Your task to perform on an android device: Open calendar and show me the second week of next month Image 0: 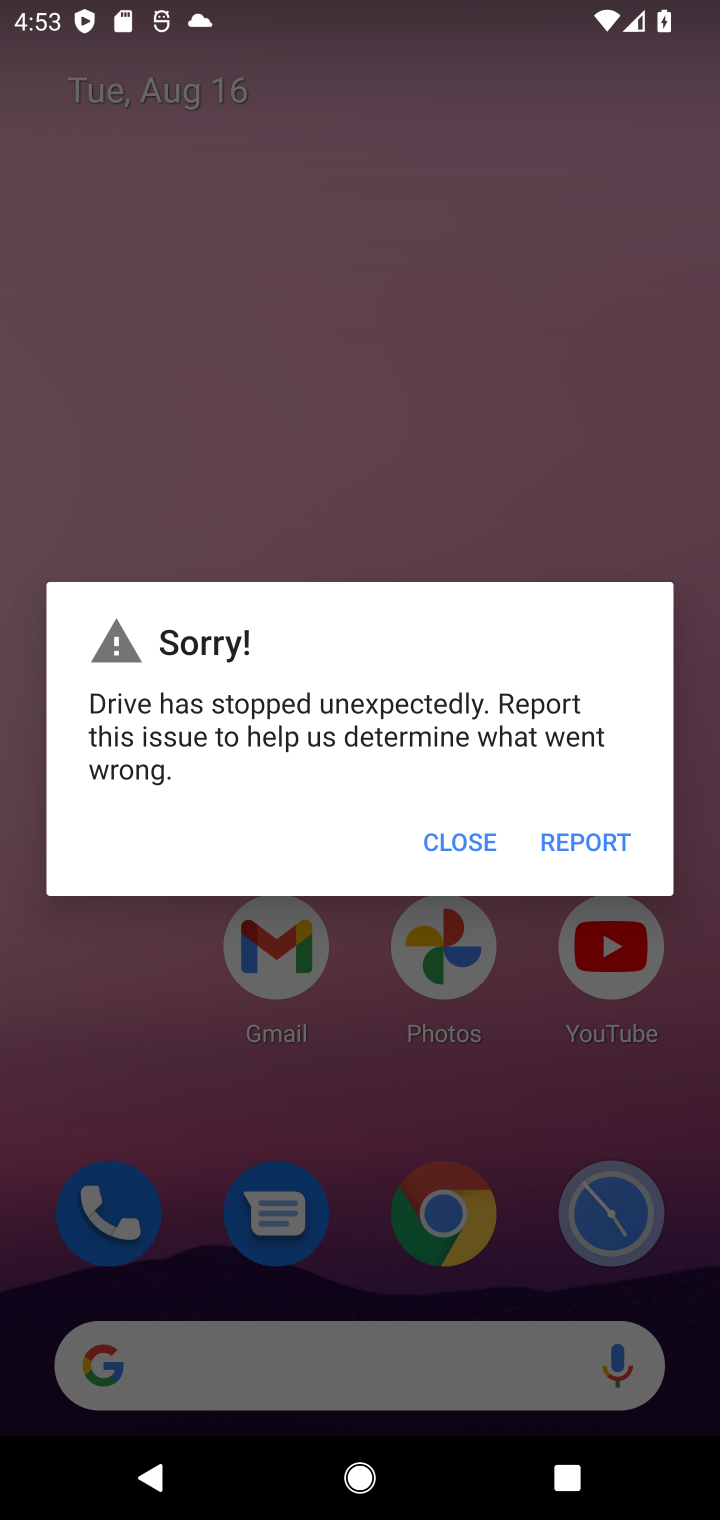
Step 0: press home button
Your task to perform on an android device: Open calendar and show me the second week of next month Image 1: 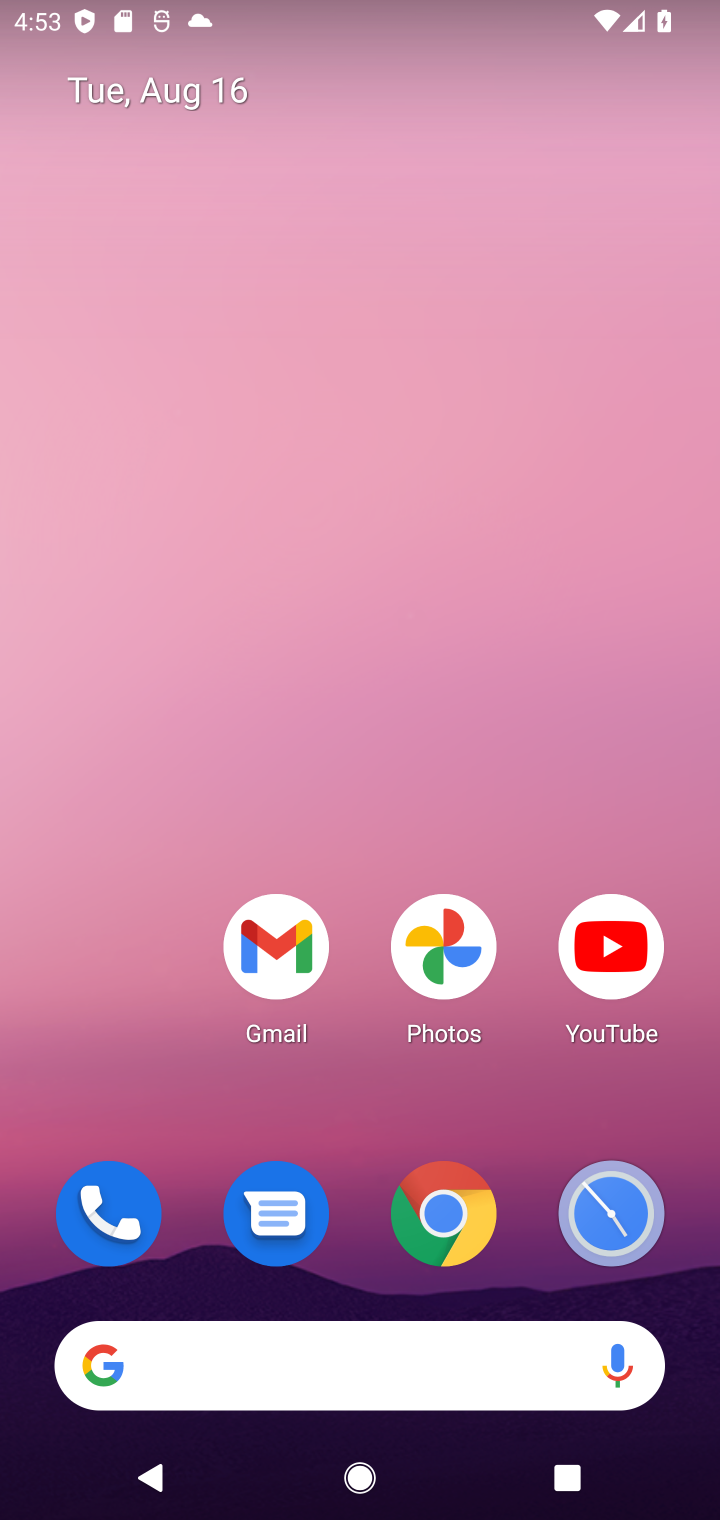
Step 1: drag from (324, 970) to (620, 21)
Your task to perform on an android device: Open calendar and show me the second week of next month Image 2: 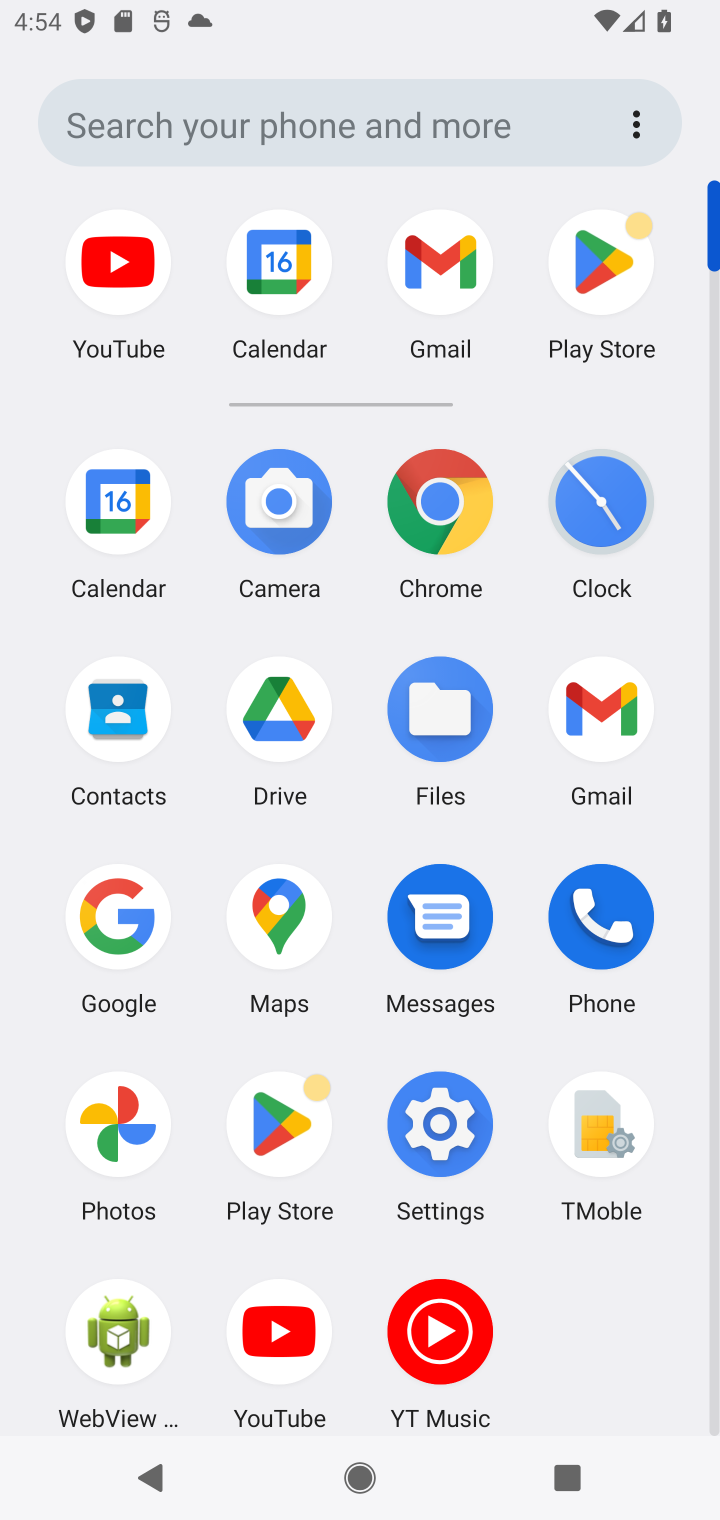
Step 2: click (119, 511)
Your task to perform on an android device: Open calendar and show me the second week of next month Image 3: 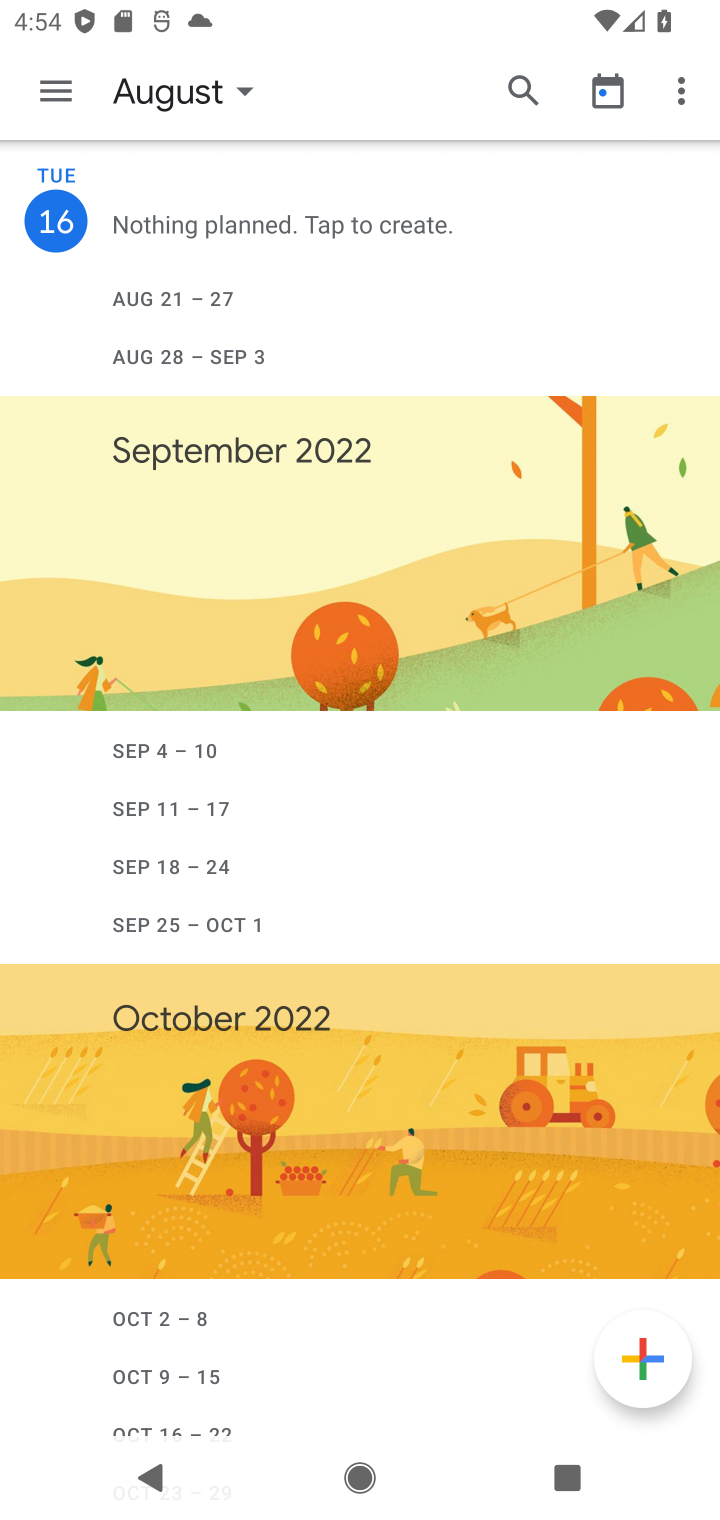
Step 3: click (139, 92)
Your task to perform on an android device: Open calendar and show me the second week of next month Image 4: 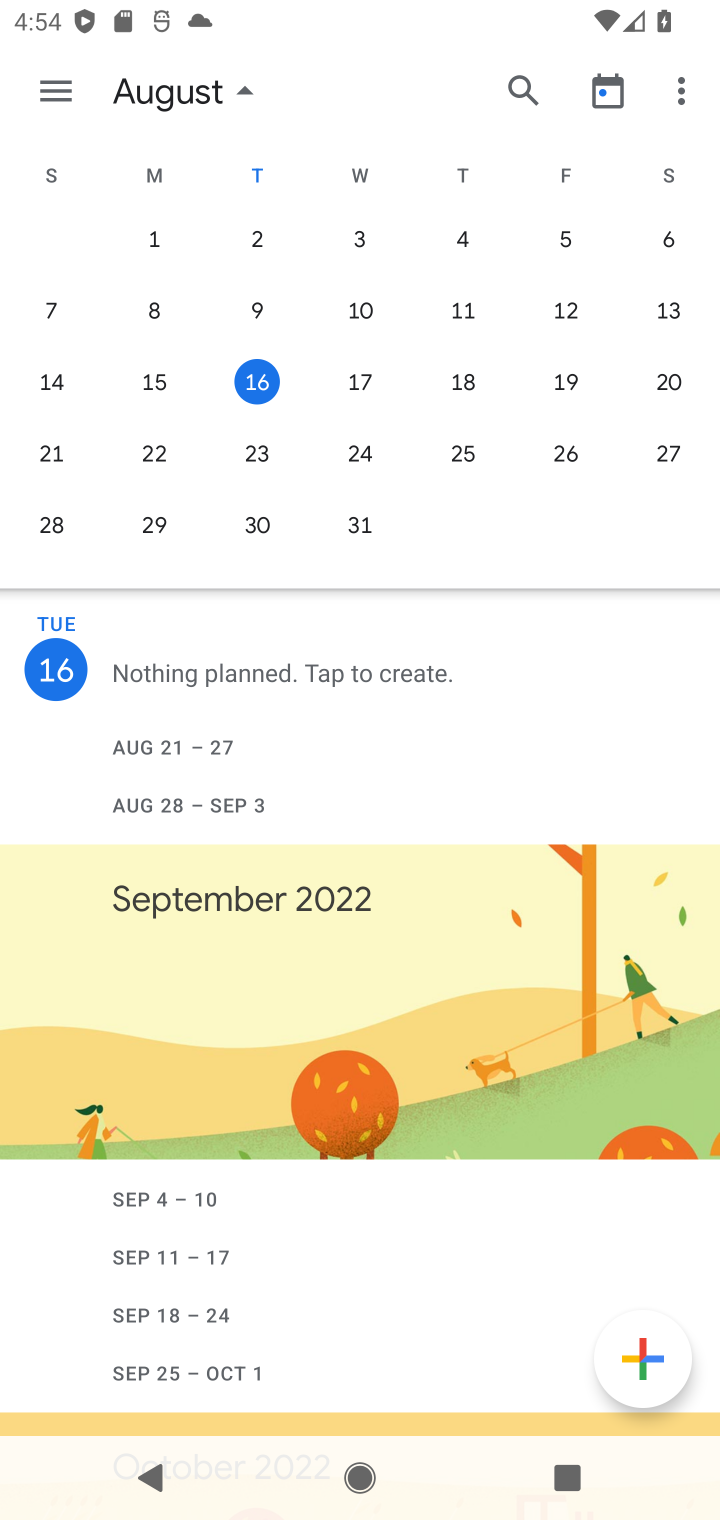
Step 4: drag from (591, 321) to (96, 381)
Your task to perform on an android device: Open calendar and show me the second week of next month Image 5: 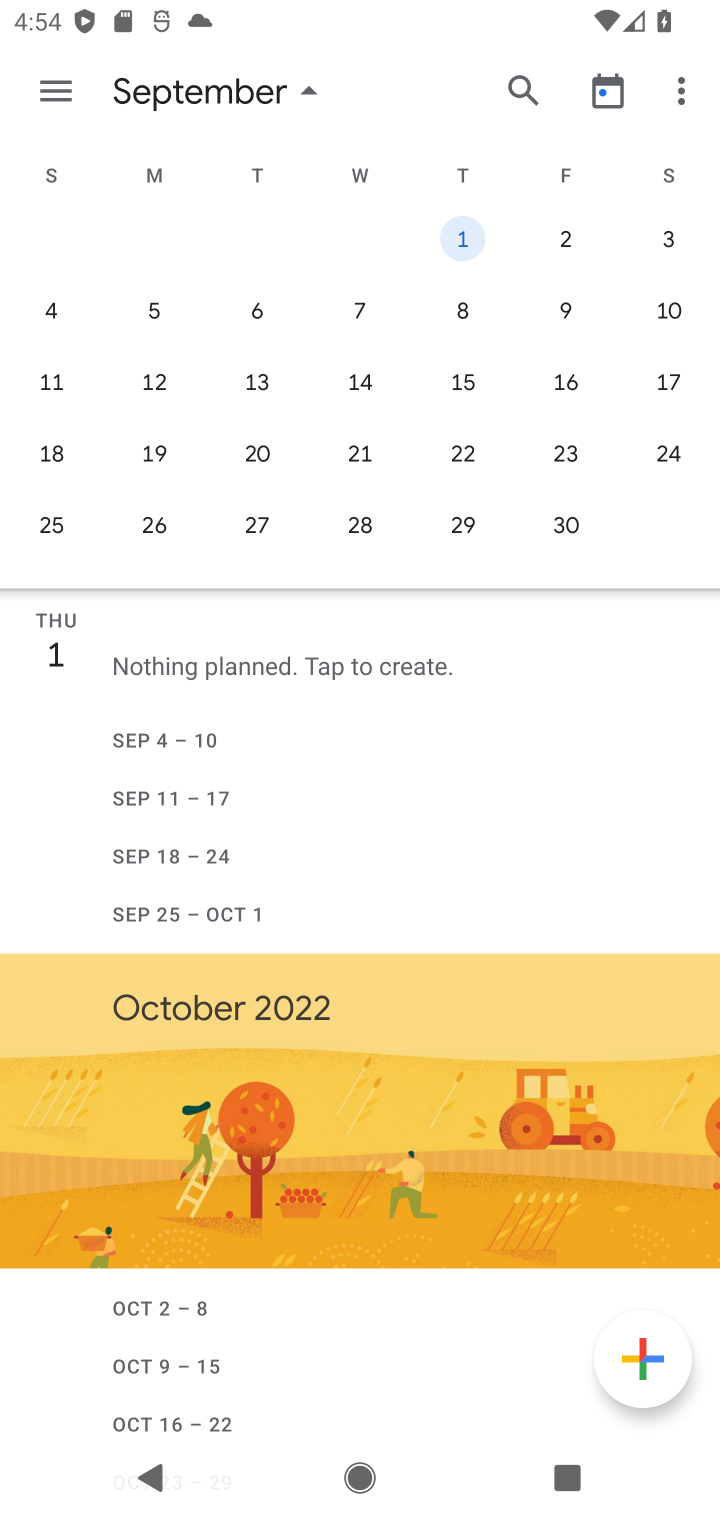
Step 5: click (156, 387)
Your task to perform on an android device: Open calendar and show me the second week of next month Image 6: 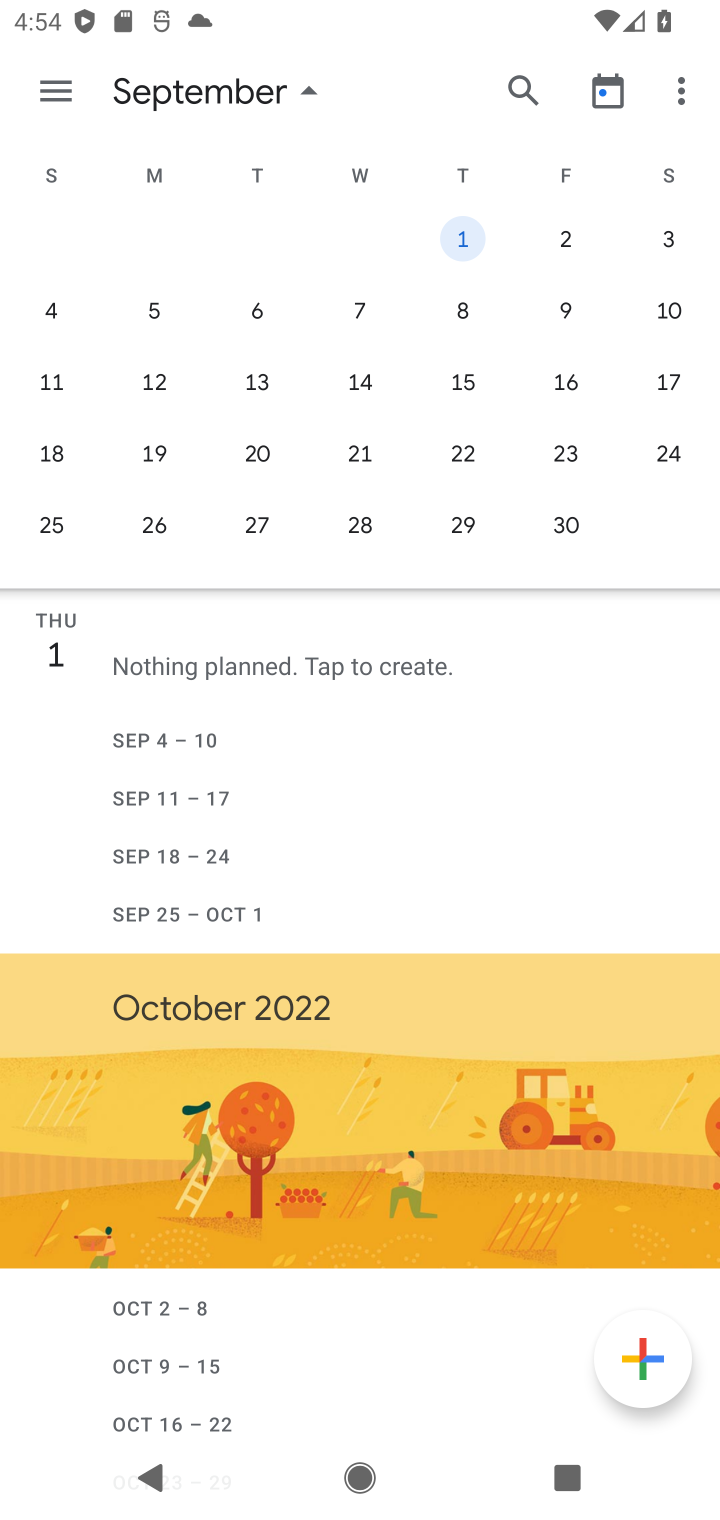
Step 6: click (56, 93)
Your task to perform on an android device: Open calendar and show me the second week of next month Image 7: 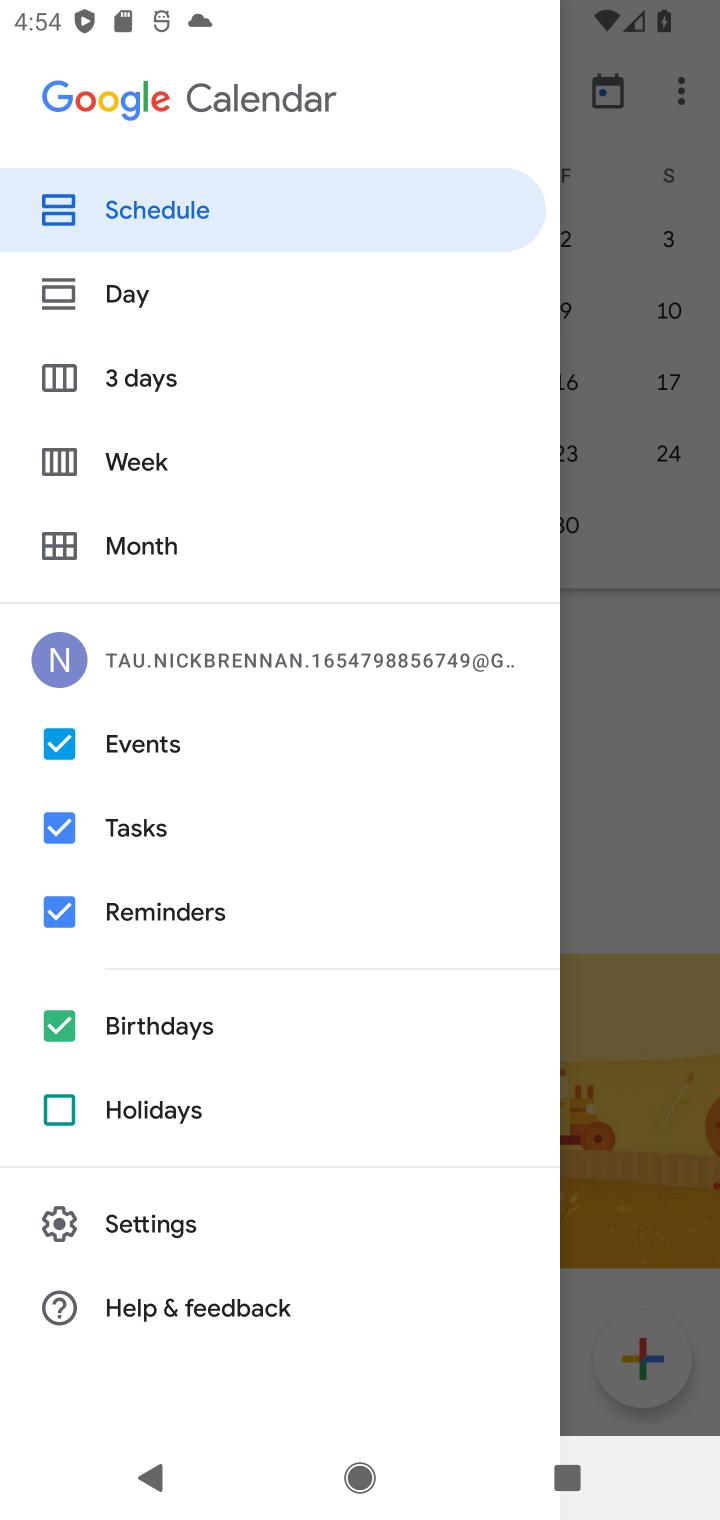
Step 7: click (141, 458)
Your task to perform on an android device: Open calendar and show me the second week of next month Image 8: 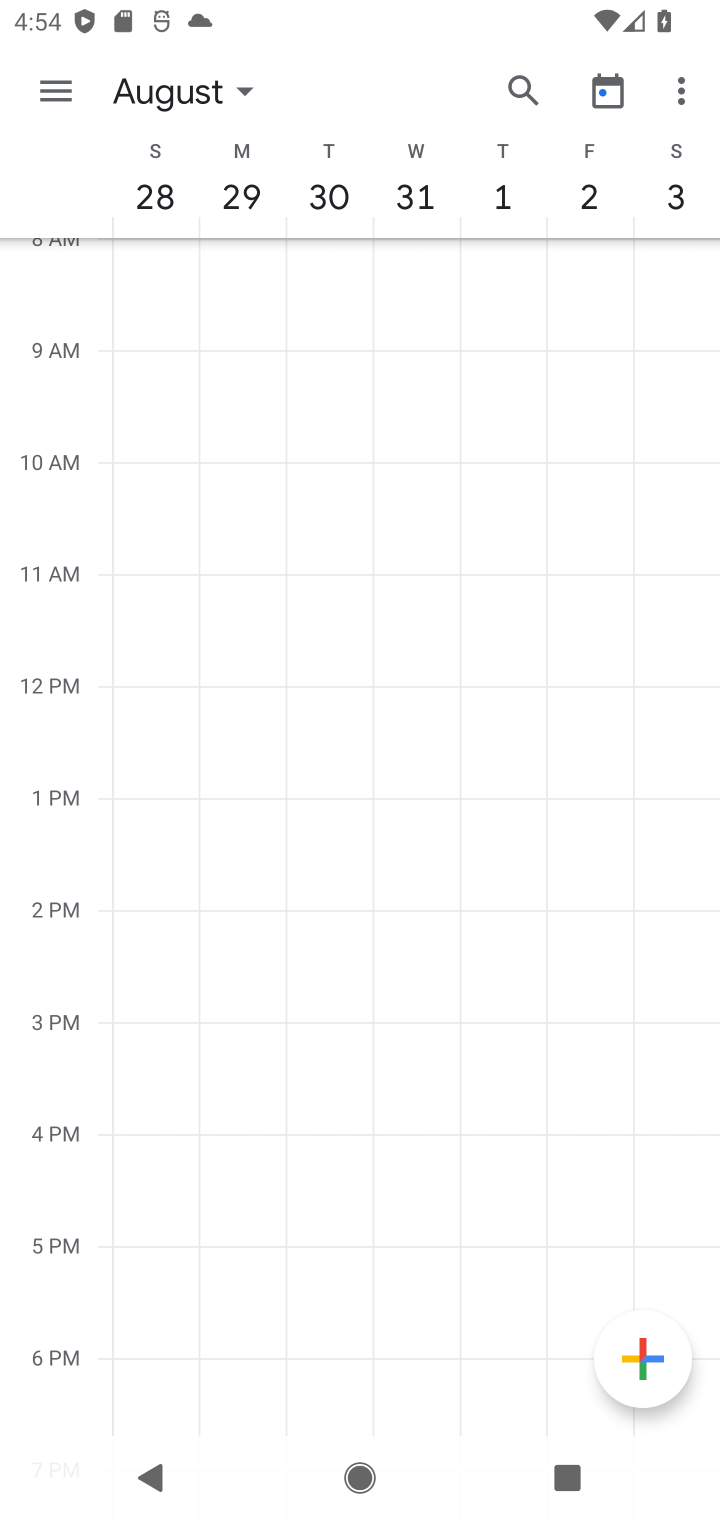
Step 8: task complete